Your task to perform on an android device: open chrome privacy settings Image 0: 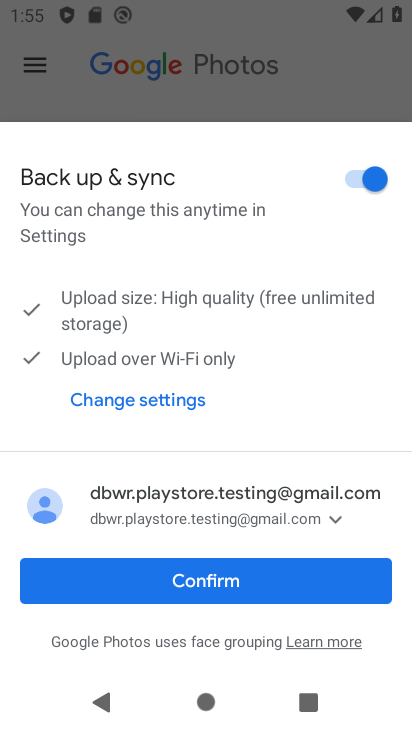
Step 0: press home button
Your task to perform on an android device: open chrome privacy settings Image 1: 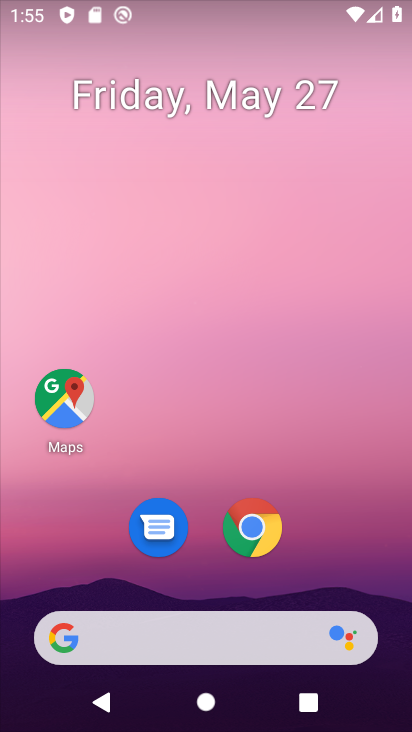
Step 1: click (272, 537)
Your task to perform on an android device: open chrome privacy settings Image 2: 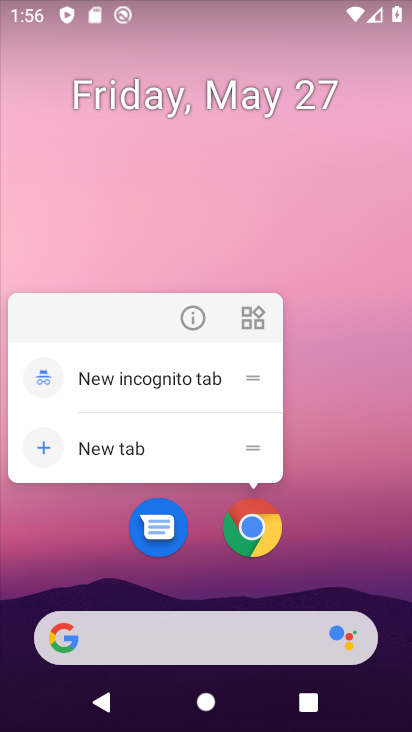
Step 2: task complete